Your task to perform on an android device: Go to accessibility settings Image 0: 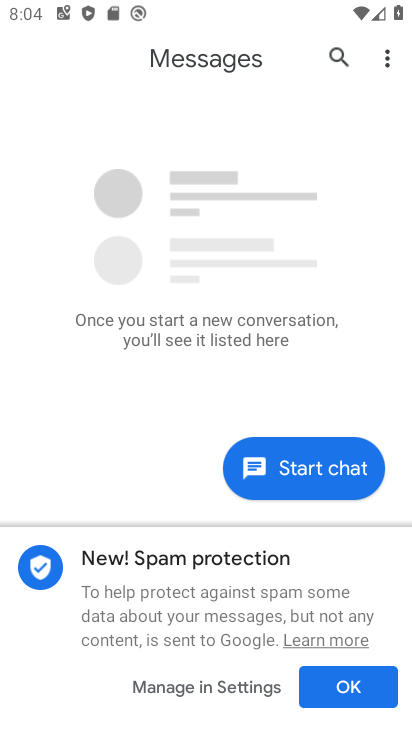
Step 0: press home button
Your task to perform on an android device: Go to accessibility settings Image 1: 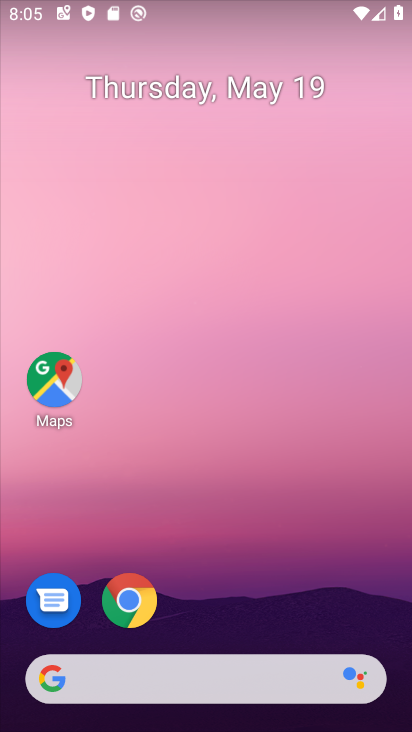
Step 1: drag from (245, 638) to (251, 3)
Your task to perform on an android device: Go to accessibility settings Image 2: 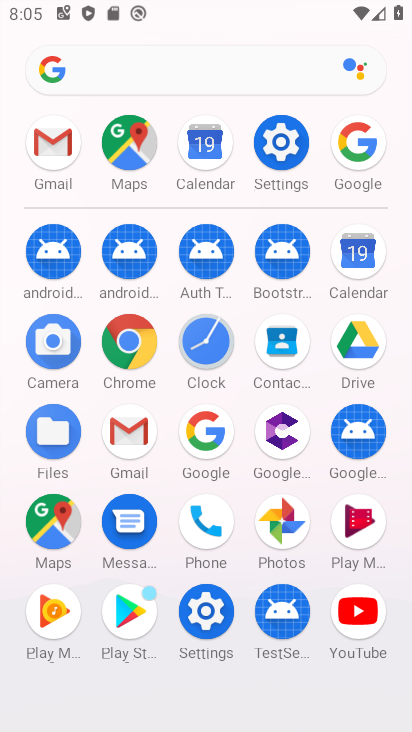
Step 2: click (282, 139)
Your task to perform on an android device: Go to accessibility settings Image 3: 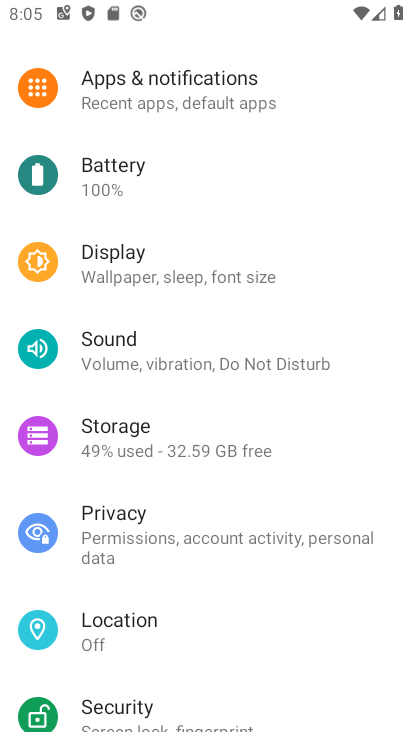
Step 3: drag from (324, 571) to (294, 237)
Your task to perform on an android device: Go to accessibility settings Image 4: 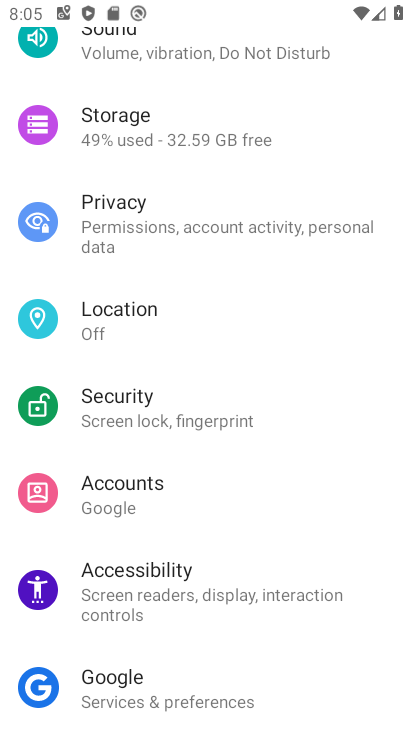
Step 4: click (146, 576)
Your task to perform on an android device: Go to accessibility settings Image 5: 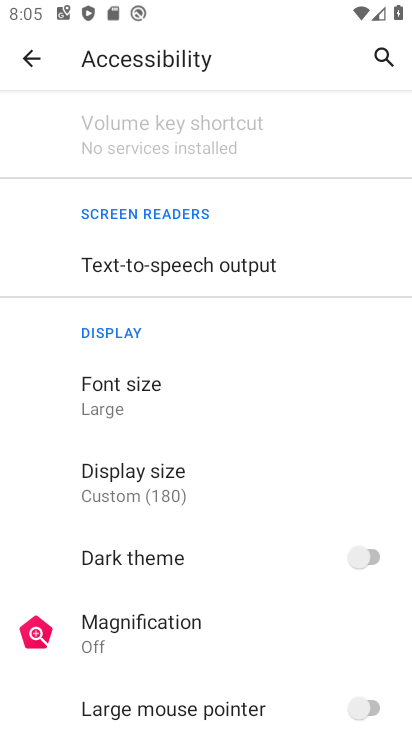
Step 5: task complete